Your task to perform on an android device: Show me productivity apps on the Play Store Image 0: 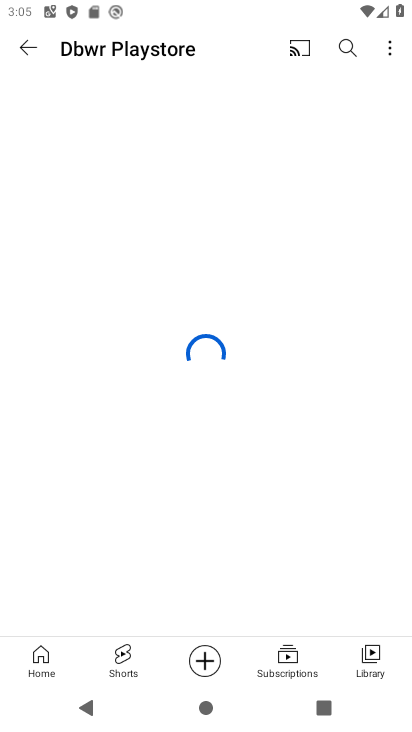
Step 0: click (127, 566)
Your task to perform on an android device: Show me productivity apps on the Play Store Image 1: 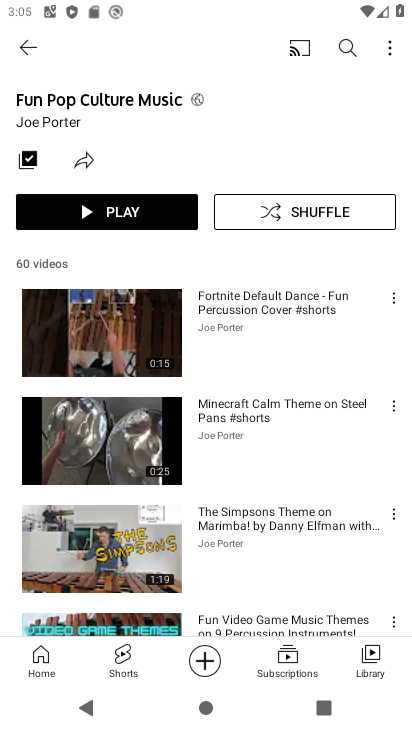
Step 1: press home button
Your task to perform on an android device: Show me productivity apps on the Play Store Image 2: 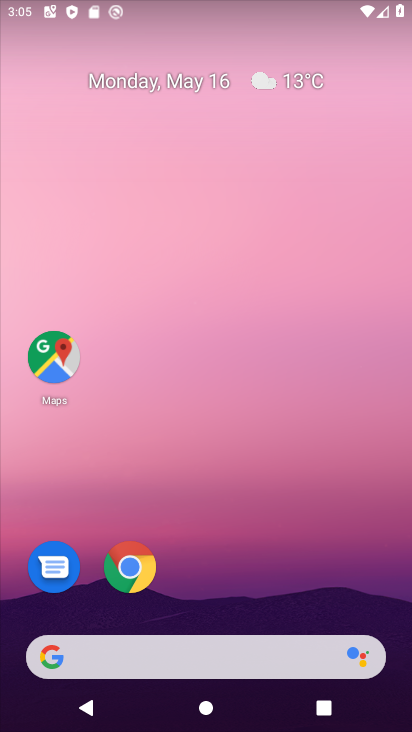
Step 2: drag from (284, 498) to (344, 77)
Your task to perform on an android device: Show me productivity apps on the Play Store Image 3: 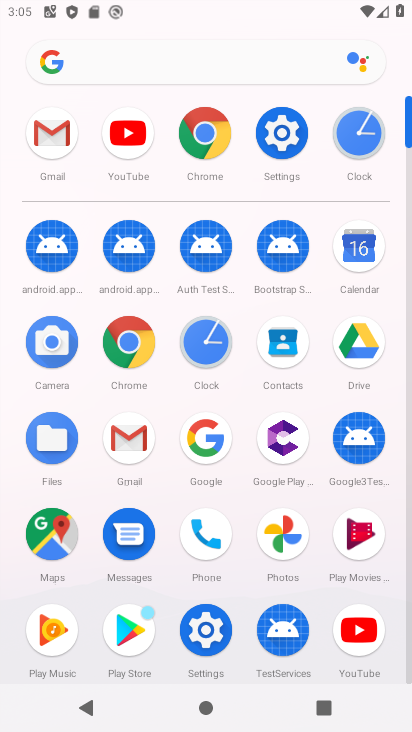
Step 3: click (140, 625)
Your task to perform on an android device: Show me productivity apps on the Play Store Image 4: 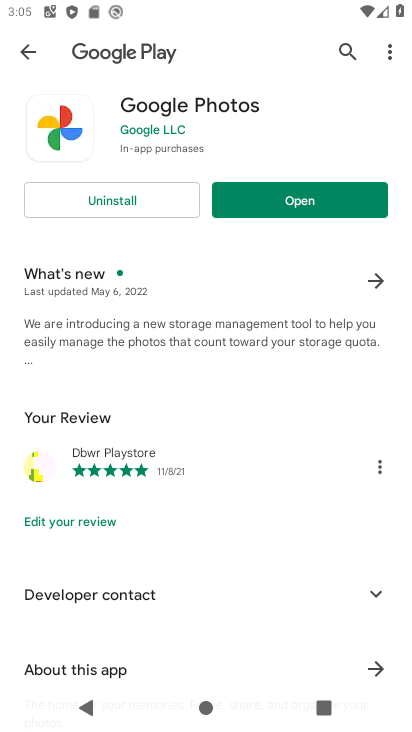
Step 4: click (16, 46)
Your task to perform on an android device: Show me productivity apps on the Play Store Image 5: 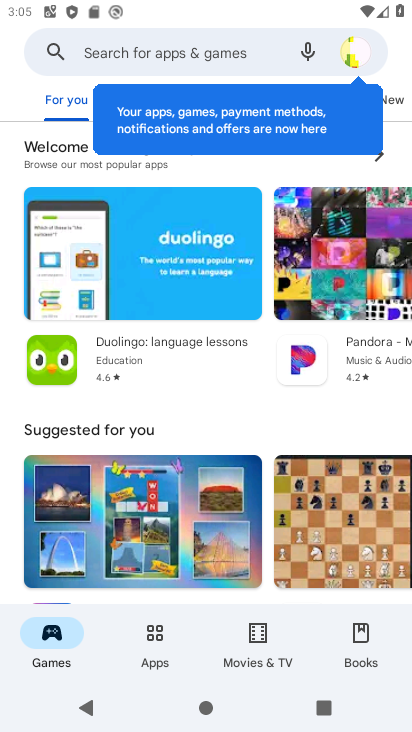
Step 5: click (166, 631)
Your task to perform on an android device: Show me productivity apps on the Play Store Image 6: 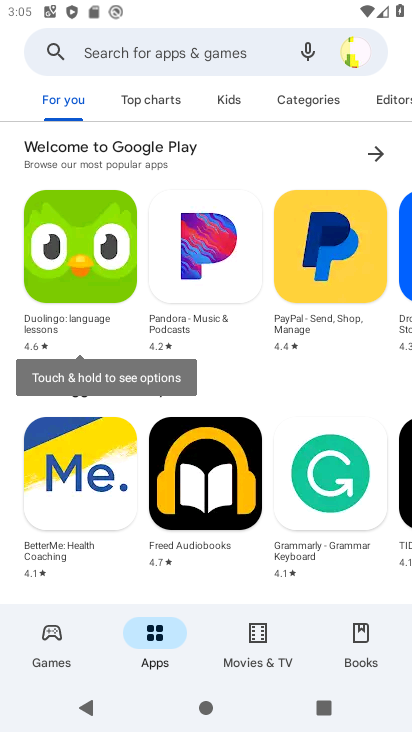
Step 6: task complete